Your task to perform on an android device: change notifications settings Image 0: 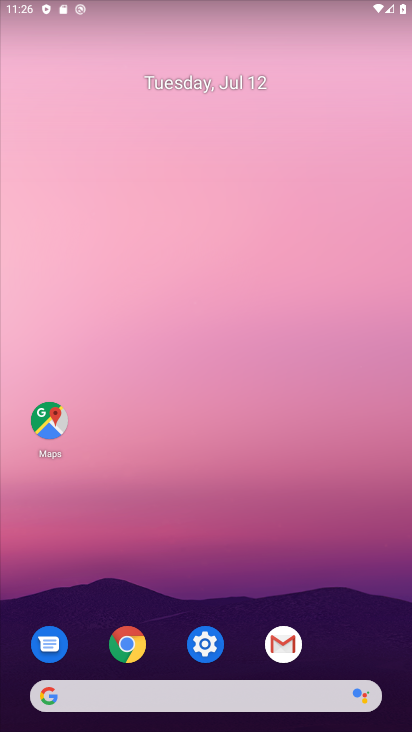
Step 0: click (220, 650)
Your task to perform on an android device: change notifications settings Image 1: 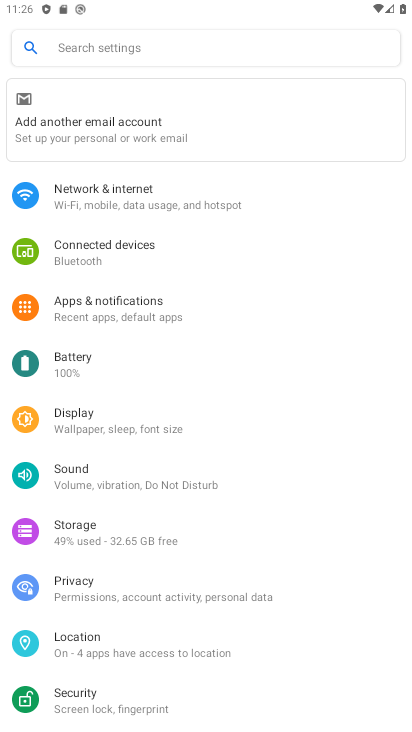
Step 1: click (103, 55)
Your task to perform on an android device: change notifications settings Image 2: 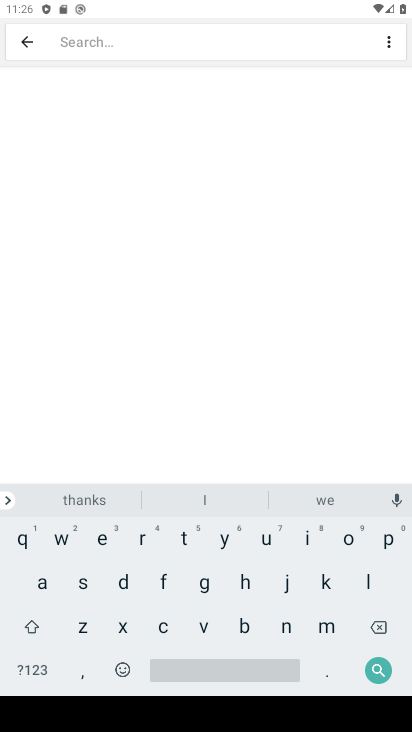
Step 2: click (295, 618)
Your task to perform on an android device: change notifications settings Image 3: 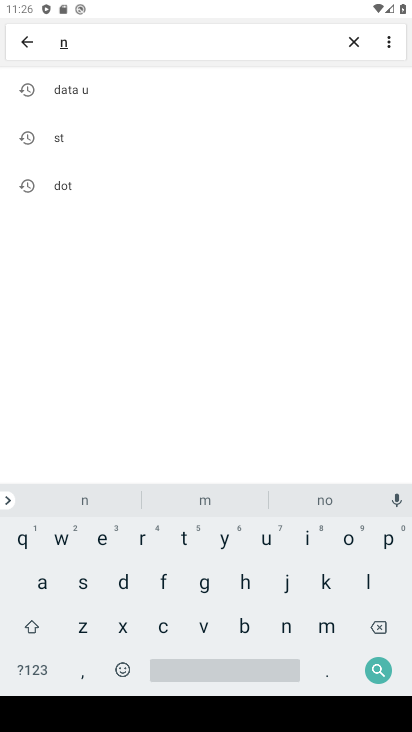
Step 3: click (342, 541)
Your task to perform on an android device: change notifications settings Image 4: 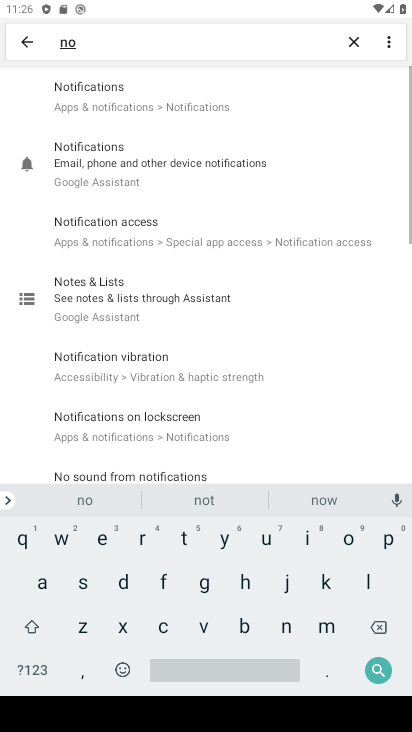
Step 4: click (131, 102)
Your task to perform on an android device: change notifications settings Image 5: 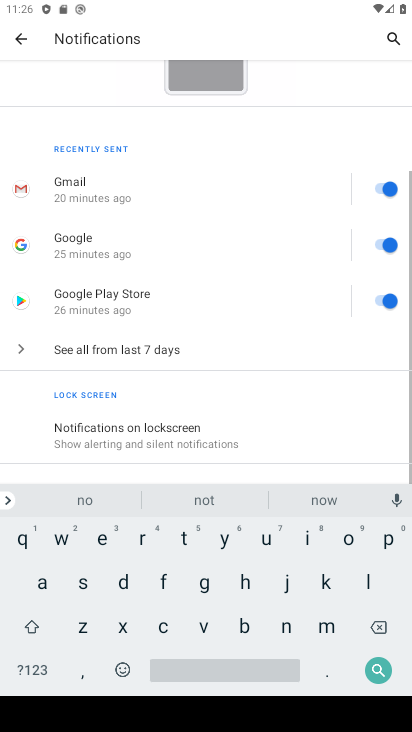
Step 5: click (129, 104)
Your task to perform on an android device: change notifications settings Image 6: 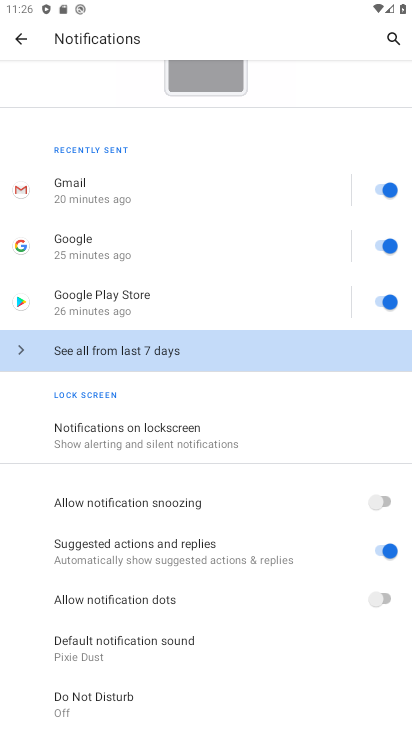
Step 6: click (151, 429)
Your task to perform on an android device: change notifications settings Image 7: 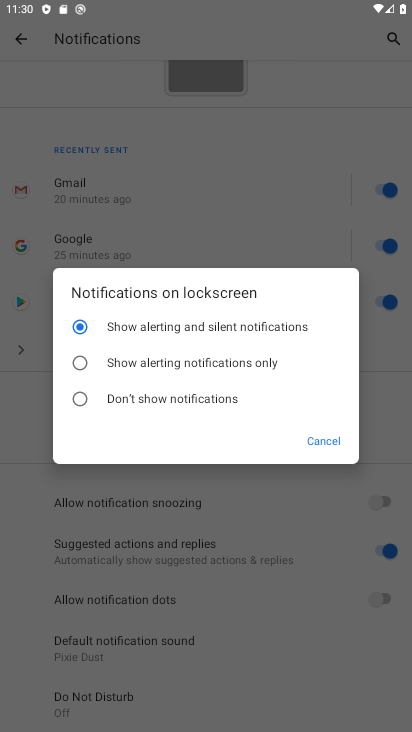
Step 7: task complete